Your task to perform on an android device: toggle airplane mode Image 0: 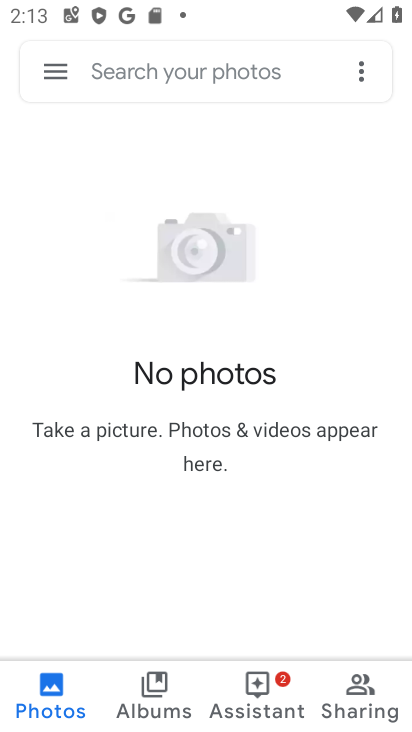
Step 0: press home button
Your task to perform on an android device: toggle airplane mode Image 1: 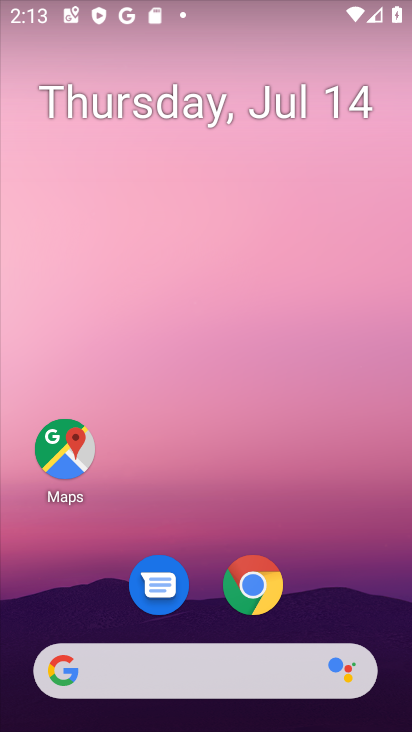
Step 1: drag from (317, 602) to (281, 54)
Your task to perform on an android device: toggle airplane mode Image 2: 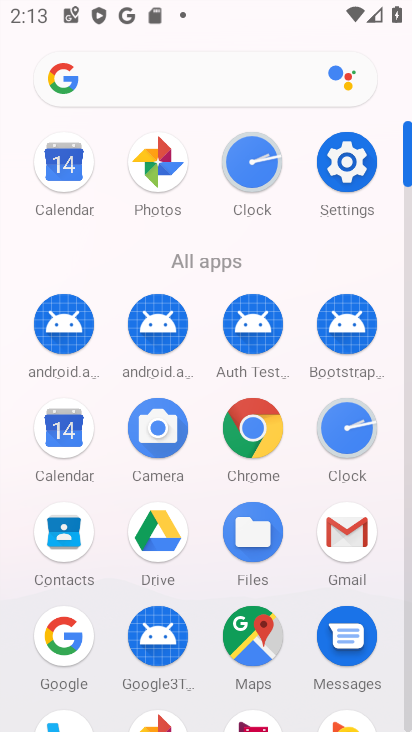
Step 2: click (340, 166)
Your task to perform on an android device: toggle airplane mode Image 3: 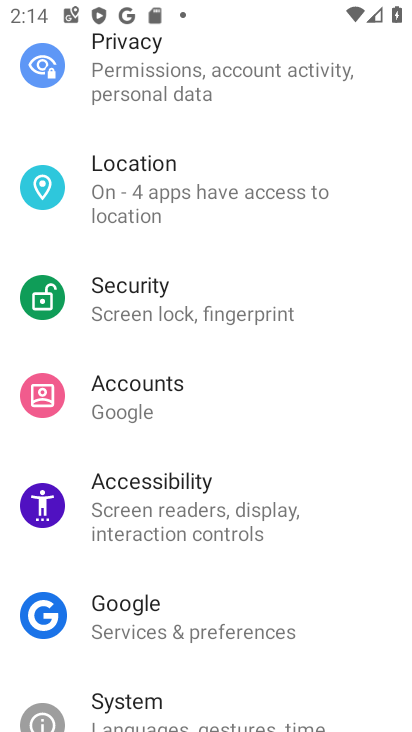
Step 3: drag from (273, 281) to (244, 525)
Your task to perform on an android device: toggle airplane mode Image 4: 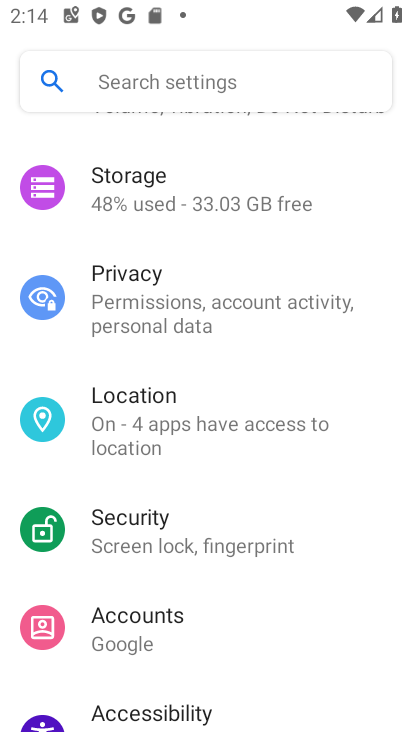
Step 4: drag from (255, 242) to (250, 551)
Your task to perform on an android device: toggle airplane mode Image 5: 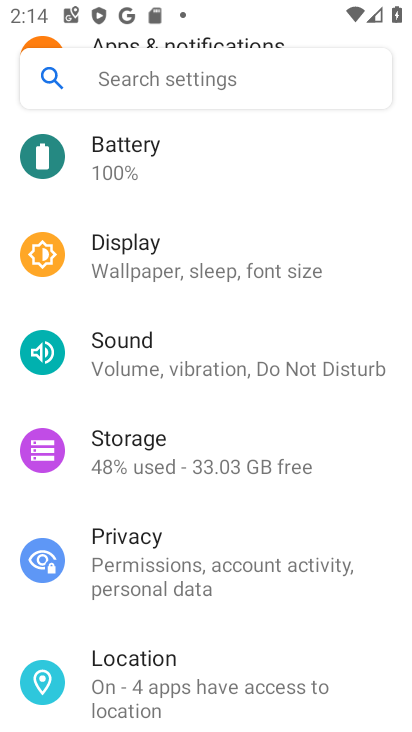
Step 5: drag from (198, 237) to (204, 510)
Your task to perform on an android device: toggle airplane mode Image 6: 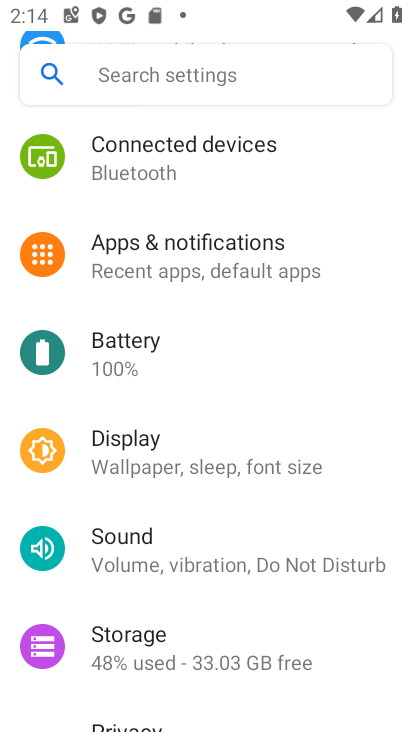
Step 6: drag from (178, 358) to (180, 612)
Your task to perform on an android device: toggle airplane mode Image 7: 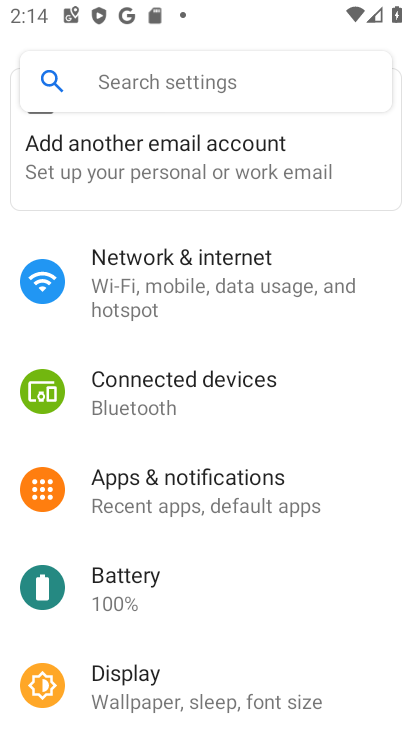
Step 7: click (232, 282)
Your task to perform on an android device: toggle airplane mode Image 8: 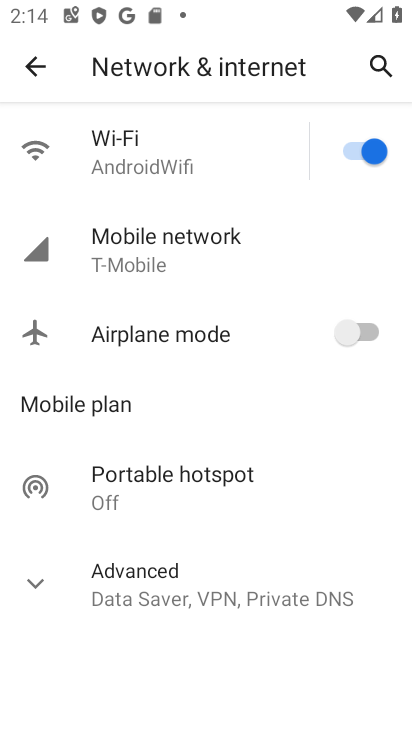
Step 8: click (362, 321)
Your task to perform on an android device: toggle airplane mode Image 9: 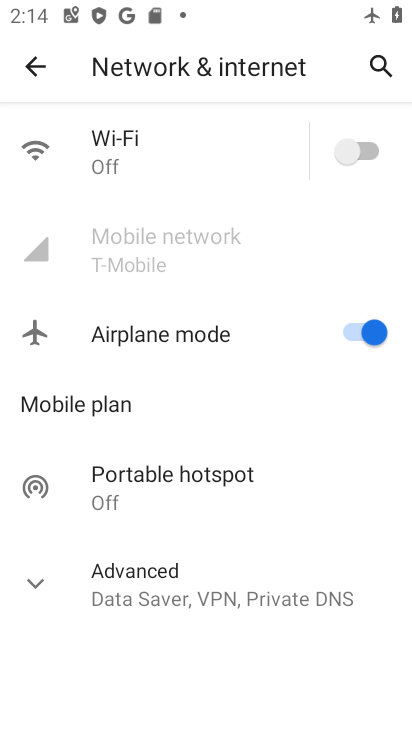
Step 9: click (353, 327)
Your task to perform on an android device: toggle airplane mode Image 10: 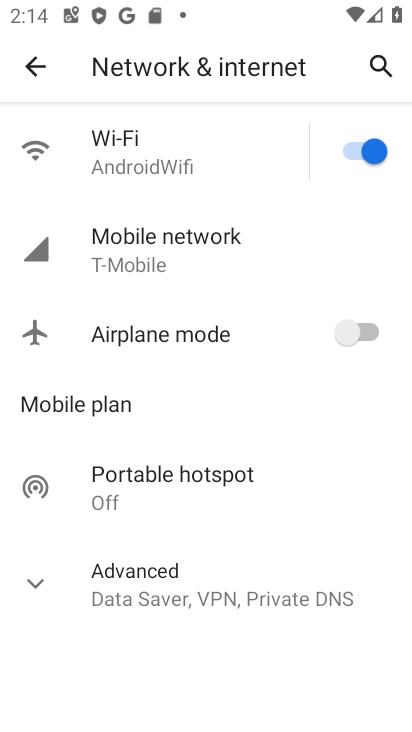
Step 10: task complete